Your task to perform on an android device: change notifications settings Image 0: 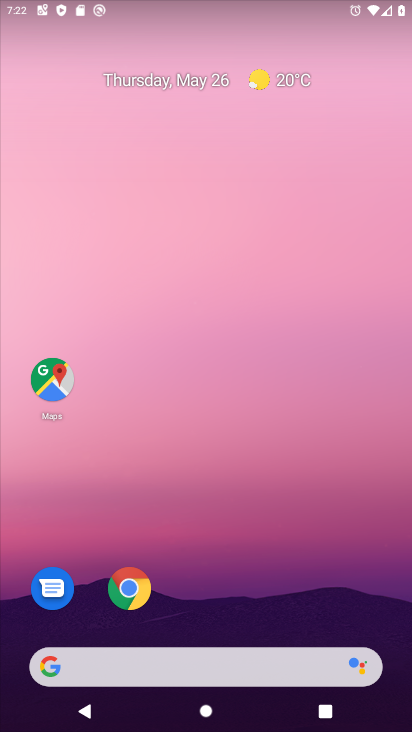
Step 0: drag from (364, 619) to (266, 6)
Your task to perform on an android device: change notifications settings Image 1: 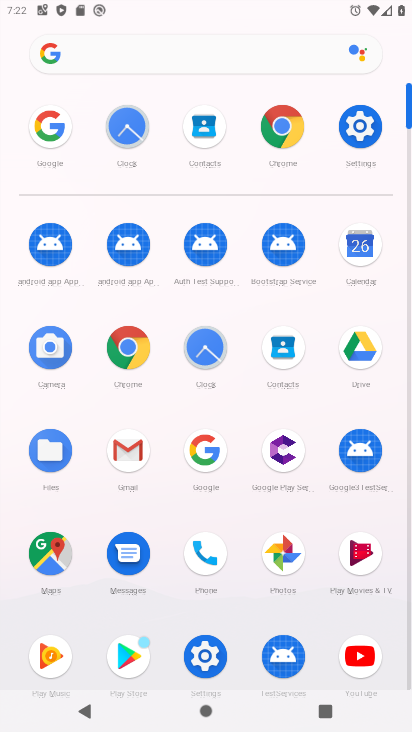
Step 1: click (359, 136)
Your task to perform on an android device: change notifications settings Image 2: 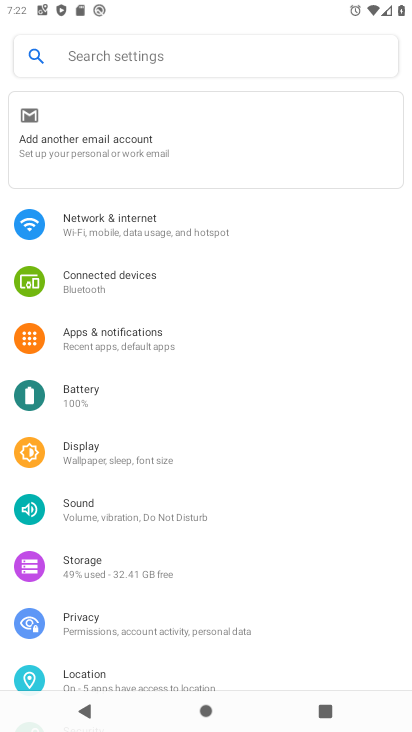
Step 2: click (153, 346)
Your task to perform on an android device: change notifications settings Image 3: 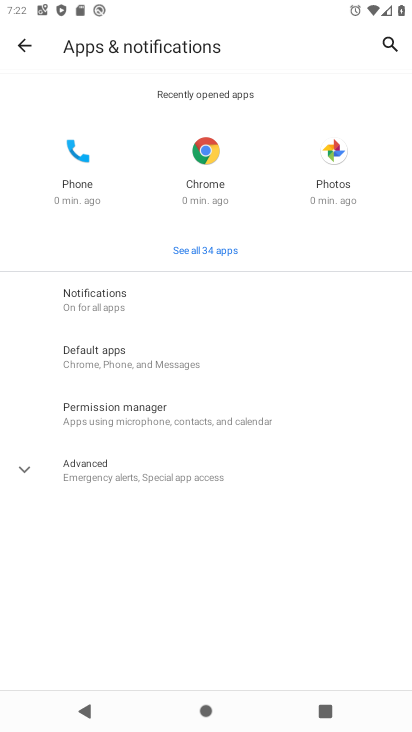
Step 3: click (129, 306)
Your task to perform on an android device: change notifications settings Image 4: 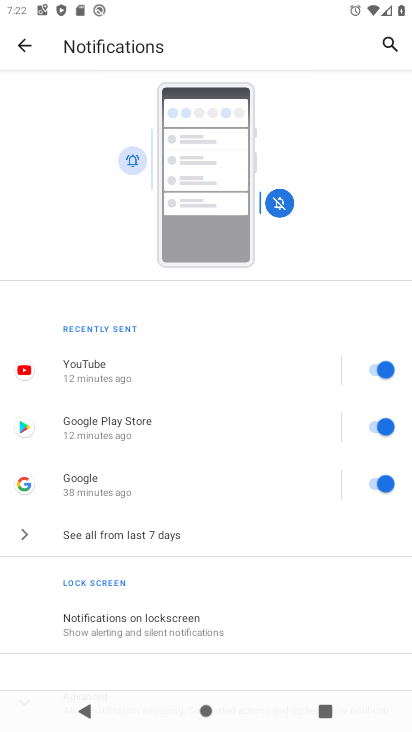
Step 4: task complete